Your task to perform on an android device: Open wifi settings Image 0: 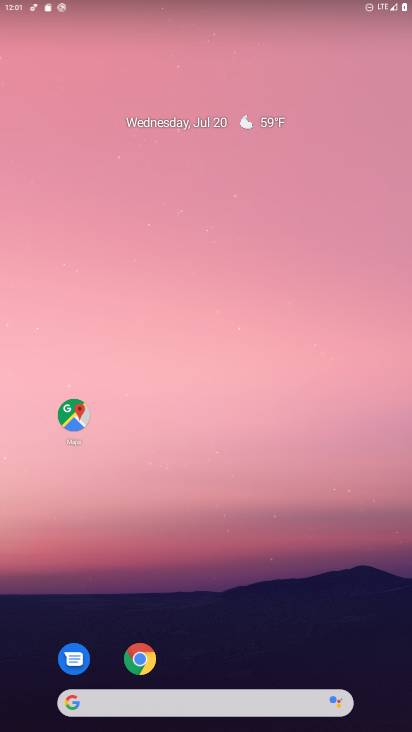
Step 0: drag from (287, 617) to (335, 59)
Your task to perform on an android device: Open wifi settings Image 1: 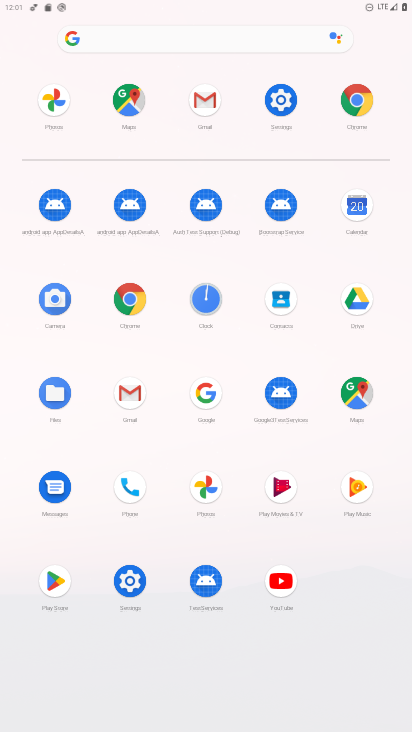
Step 1: click (288, 93)
Your task to perform on an android device: Open wifi settings Image 2: 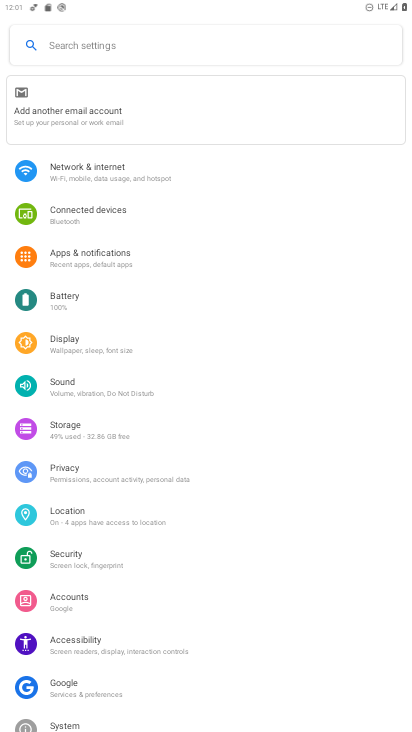
Step 2: click (119, 180)
Your task to perform on an android device: Open wifi settings Image 3: 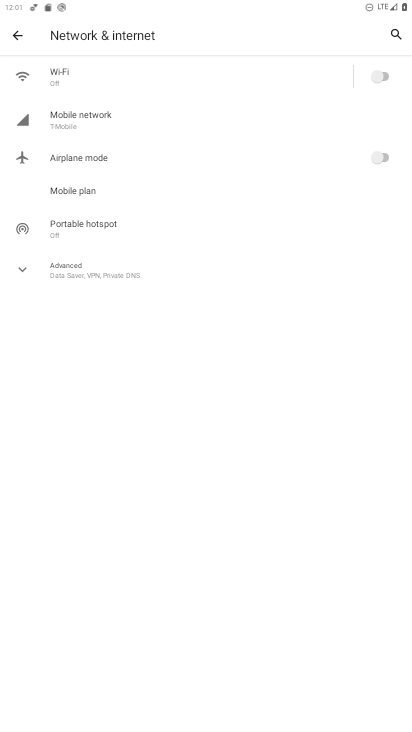
Step 3: click (305, 76)
Your task to perform on an android device: Open wifi settings Image 4: 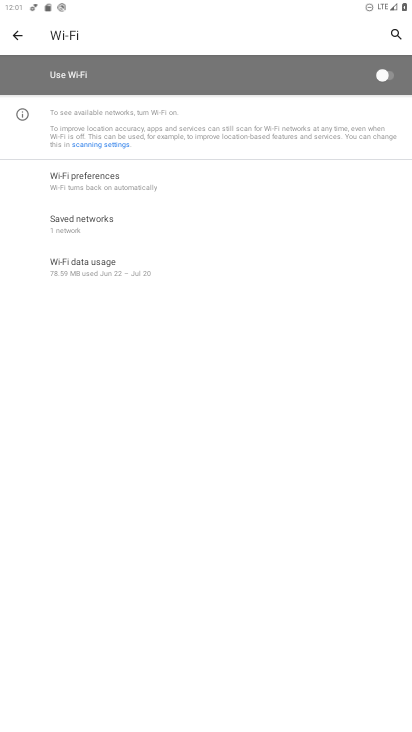
Step 4: click (383, 77)
Your task to perform on an android device: Open wifi settings Image 5: 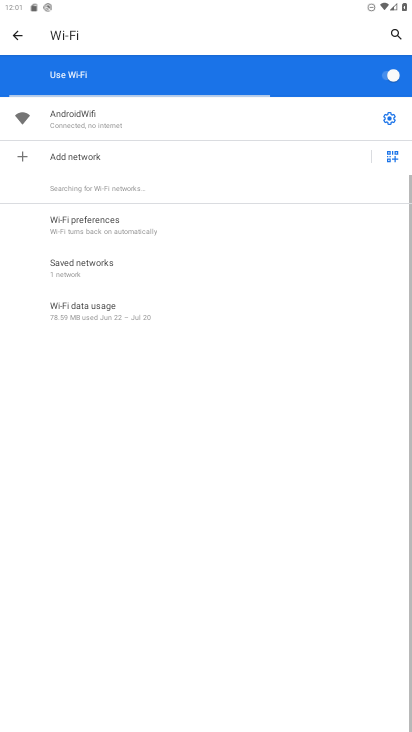
Step 5: click (391, 117)
Your task to perform on an android device: Open wifi settings Image 6: 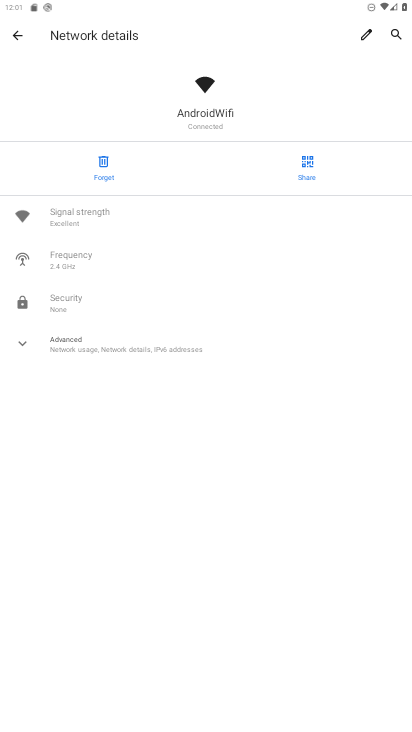
Step 6: task complete